Your task to perform on an android device: Open Amazon Image 0: 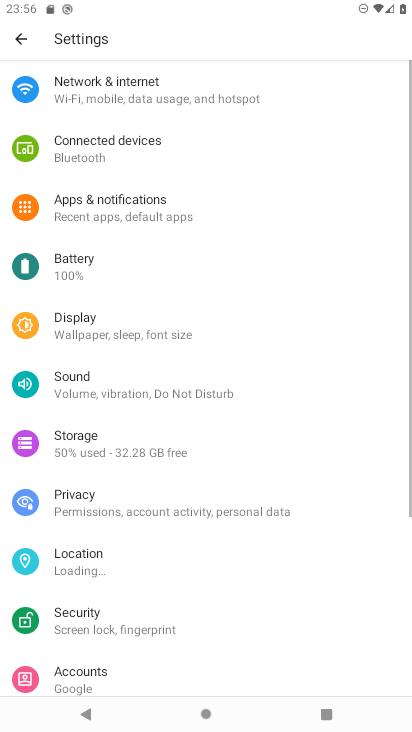
Step 0: press home button
Your task to perform on an android device: Open Amazon Image 1: 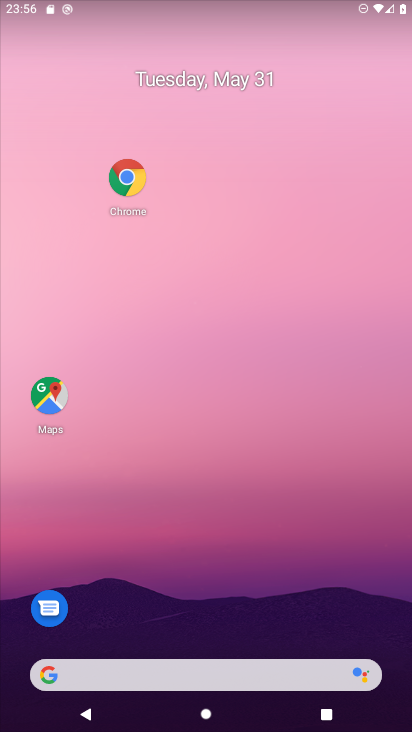
Step 1: click (129, 188)
Your task to perform on an android device: Open Amazon Image 2: 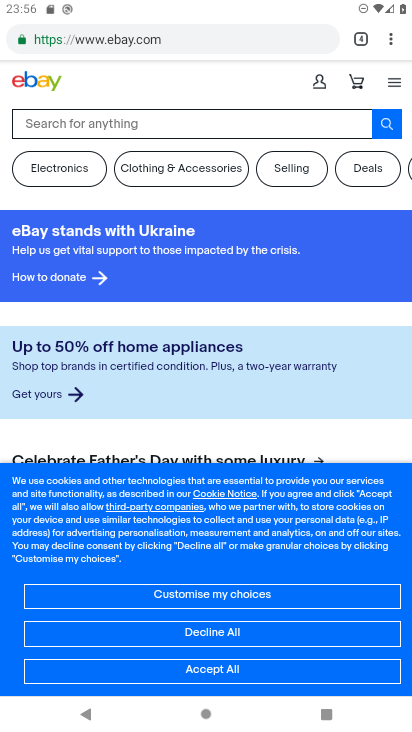
Step 2: drag from (385, 43) to (280, 77)
Your task to perform on an android device: Open Amazon Image 3: 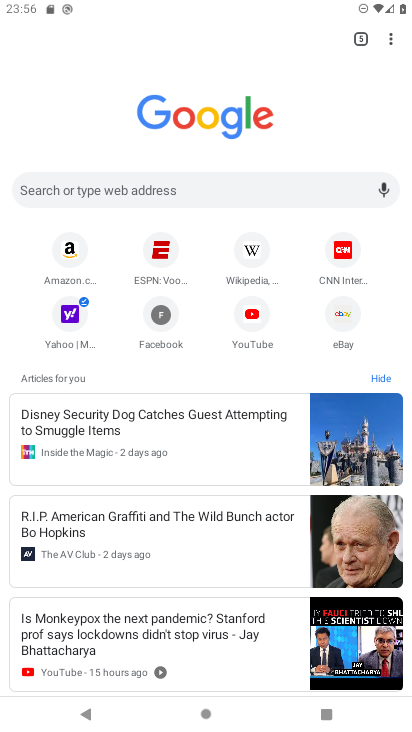
Step 3: click (74, 253)
Your task to perform on an android device: Open Amazon Image 4: 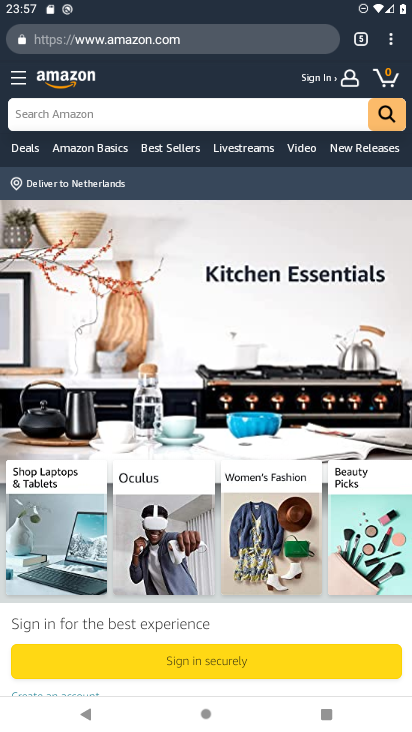
Step 4: task complete